Your task to perform on an android device: open the mobile data screen to see how much data has been used Image 0: 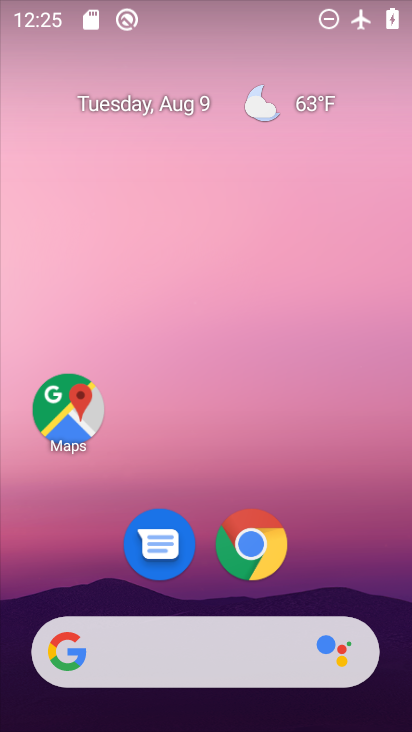
Step 0: drag from (145, 644) to (281, 109)
Your task to perform on an android device: open the mobile data screen to see how much data has been used Image 1: 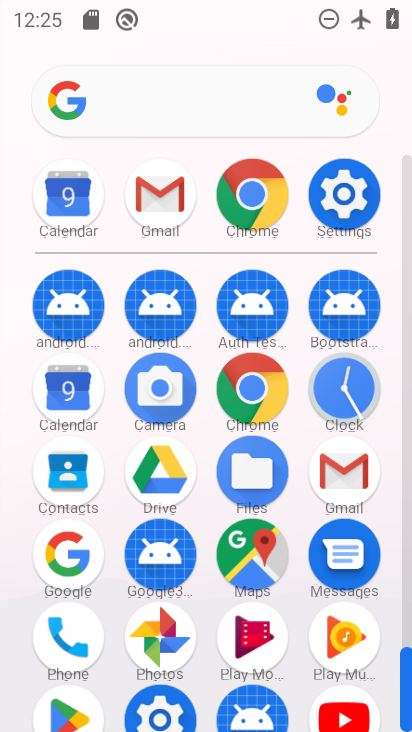
Step 1: click (345, 191)
Your task to perform on an android device: open the mobile data screen to see how much data has been used Image 2: 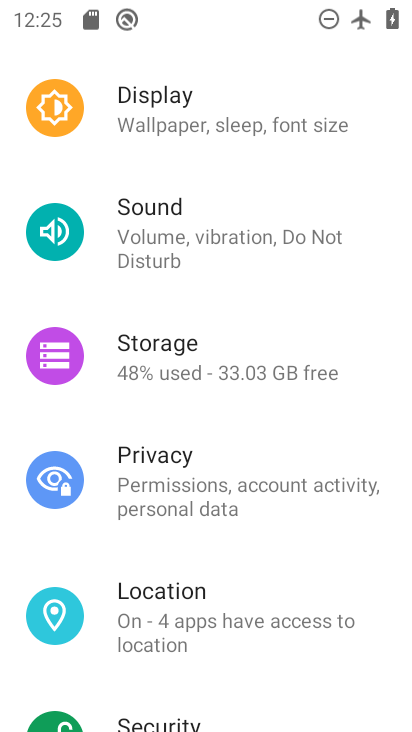
Step 2: drag from (220, 192) to (200, 394)
Your task to perform on an android device: open the mobile data screen to see how much data has been used Image 3: 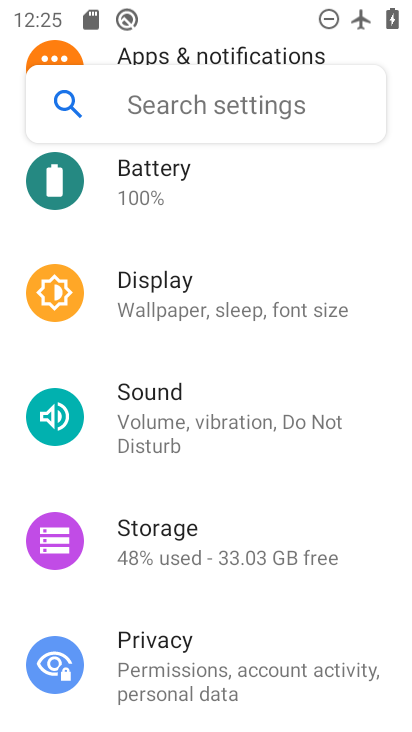
Step 3: drag from (218, 313) to (209, 483)
Your task to perform on an android device: open the mobile data screen to see how much data has been used Image 4: 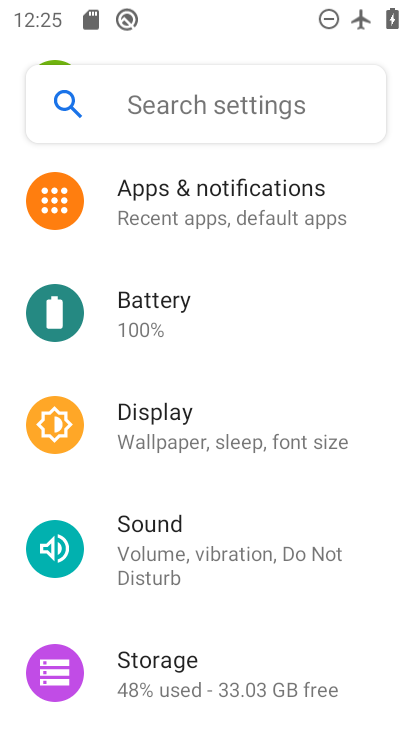
Step 4: click (247, 216)
Your task to perform on an android device: open the mobile data screen to see how much data has been used Image 5: 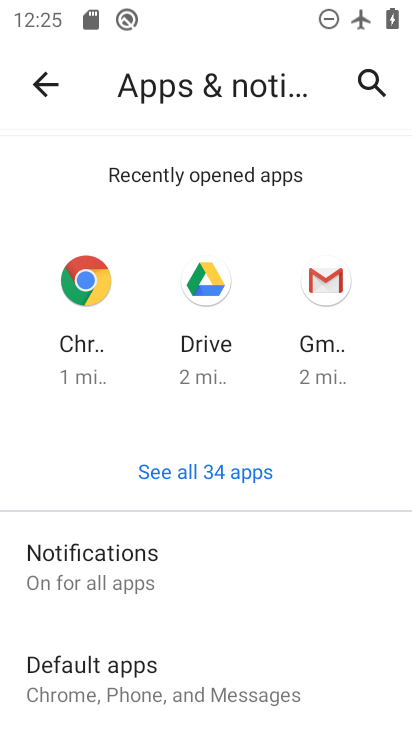
Step 5: press back button
Your task to perform on an android device: open the mobile data screen to see how much data has been used Image 6: 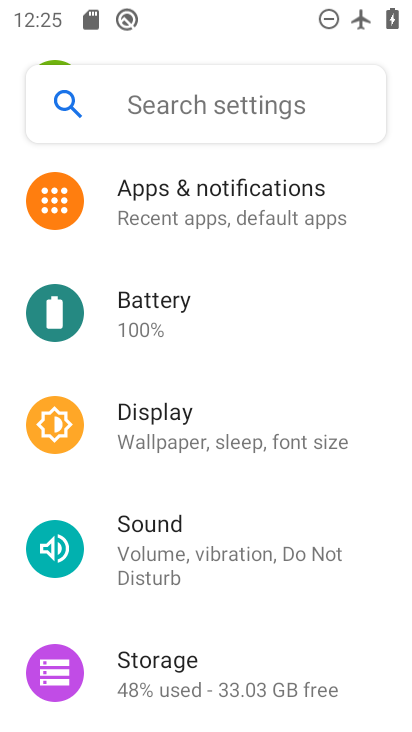
Step 6: drag from (205, 256) to (129, 575)
Your task to perform on an android device: open the mobile data screen to see how much data has been used Image 7: 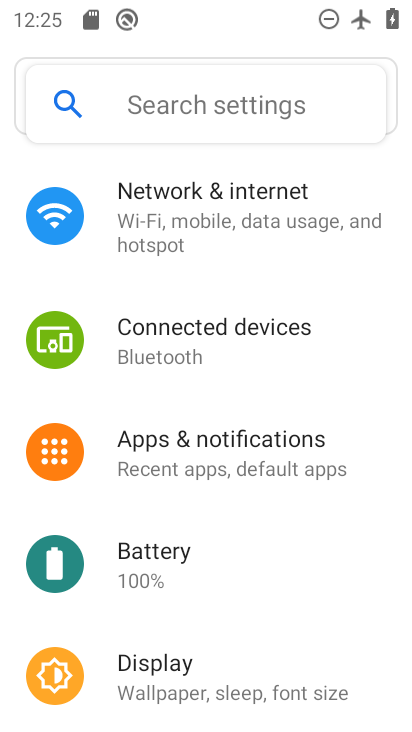
Step 7: click (186, 204)
Your task to perform on an android device: open the mobile data screen to see how much data has been used Image 8: 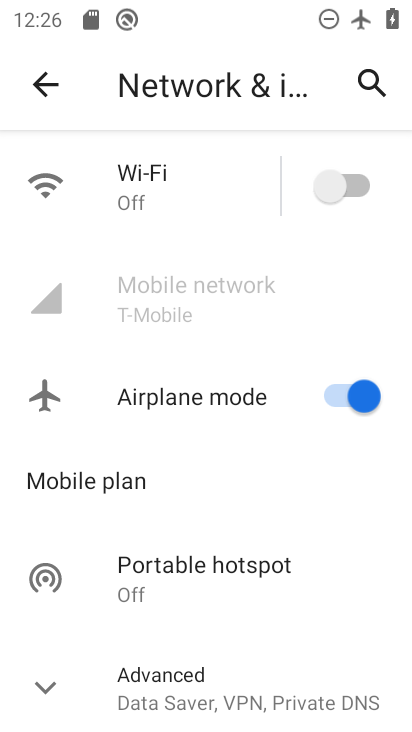
Step 8: task complete